Your task to perform on an android device: Check out the best rated electric trimmers on Lowe's Image 0: 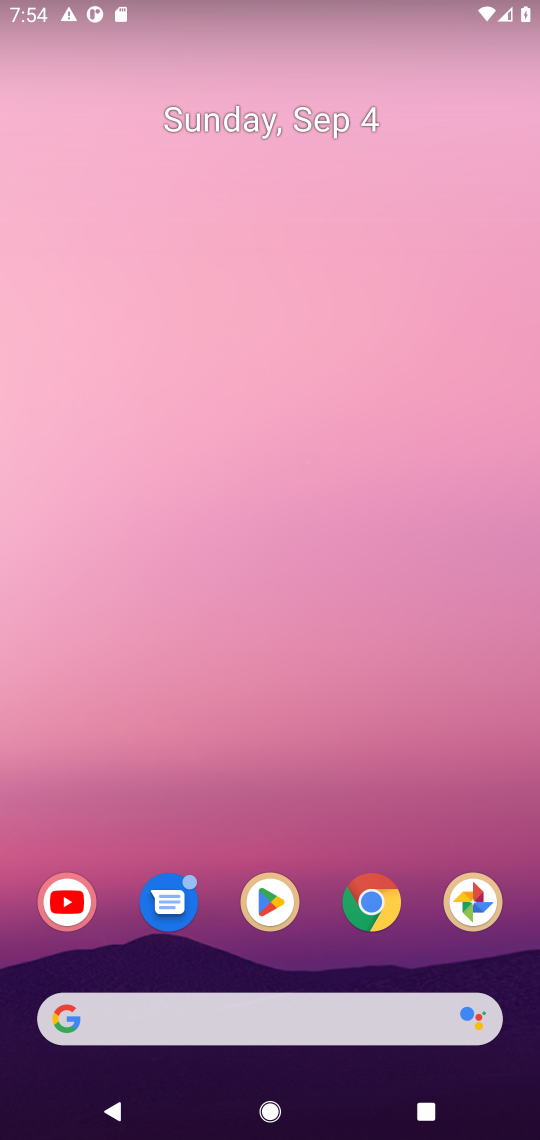
Step 0: click (273, 853)
Your task to perform on an android device: Check out the best rated electric trimmers on Lowe's Image 1: 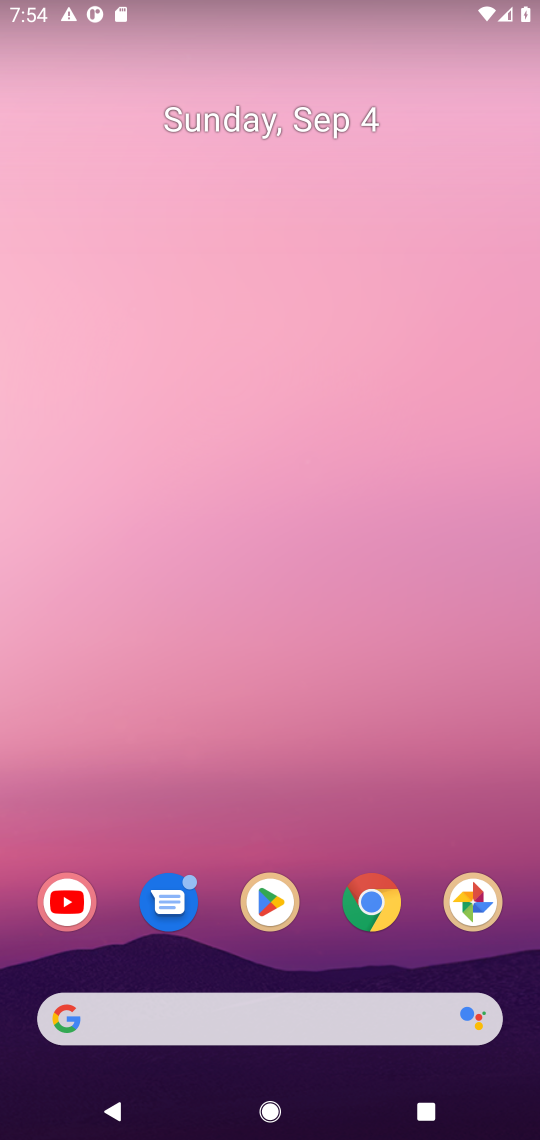
Step 1: click (272, 877)
Your task to perform on an android device: Check out the best rated electric trimmers on Lowe's Image 2: 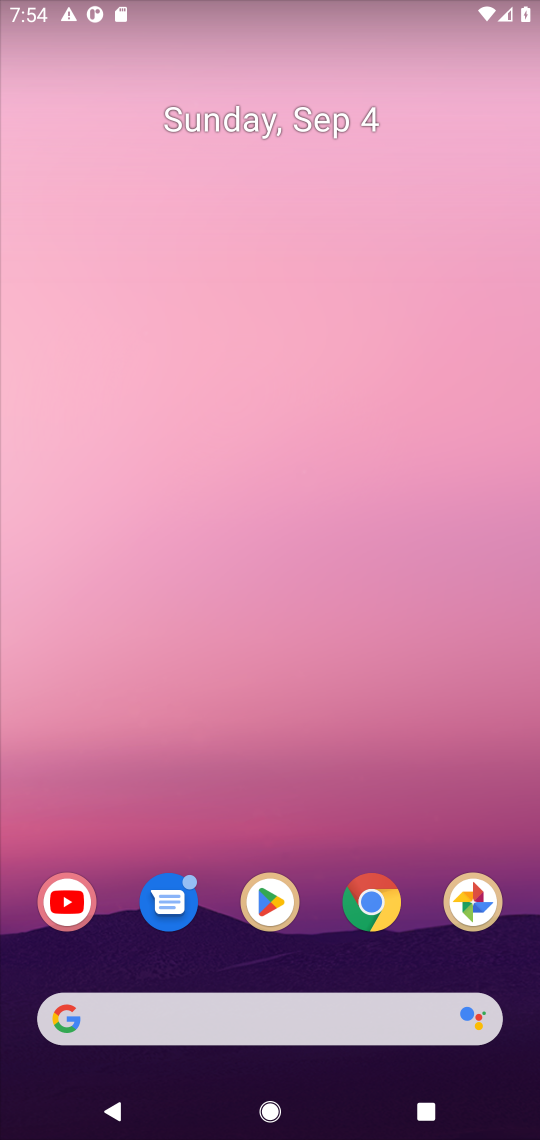
Step 2: task complete